Your task to perform on an android device: turn off location history Image 0: 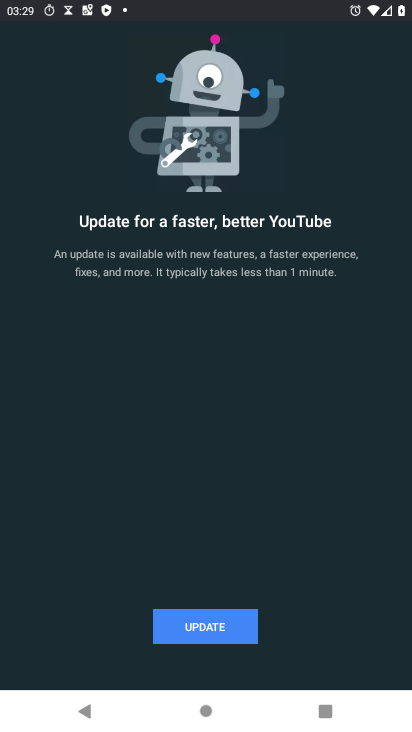
Step 0: press home button
Your task to perform on an android device: turn off location history Image 1: 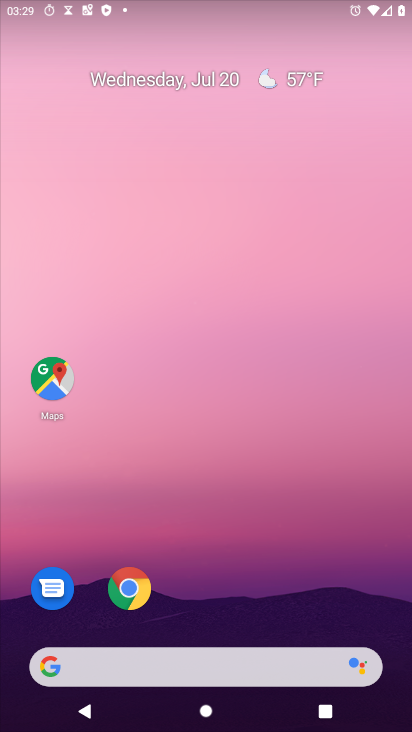
Step 1: drag from (243, 562) to (405, 249)
Your task to perform on an android device: turn off location history Image 2: 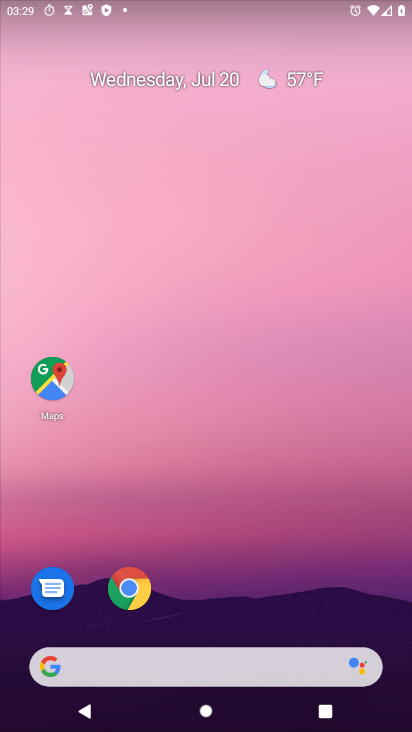
Step 2: drag from (270, 671) to (294, 19)
Your task to perform on an android device: turn off location history Image 3: 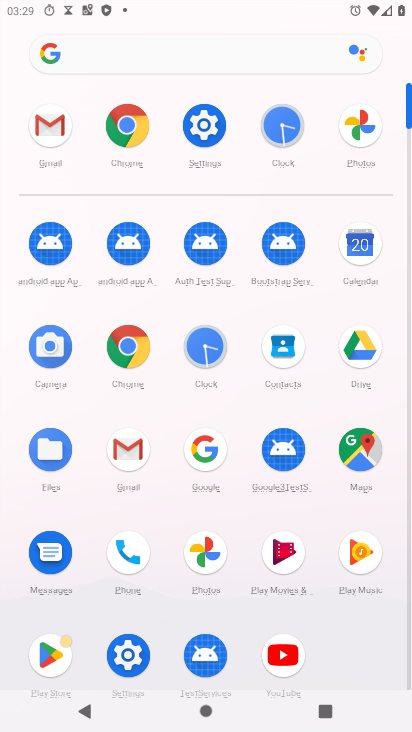
Step 3: click (217, 129)
Your task to perform on an android device: turn off location history Image 4: 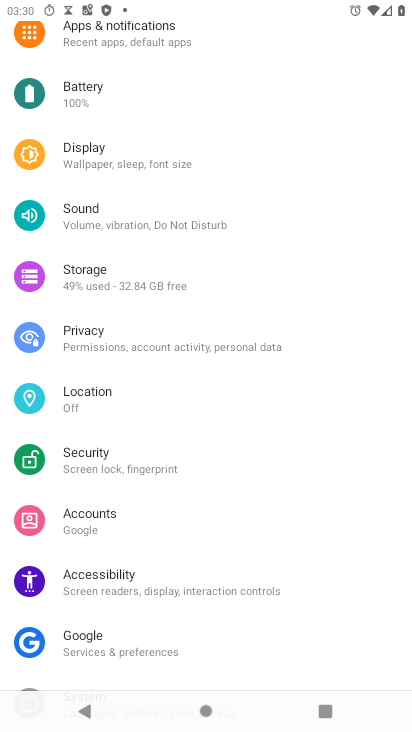
Step 4: click (126, 397)
Your task to perform on an android device: turn off location history Image 5: 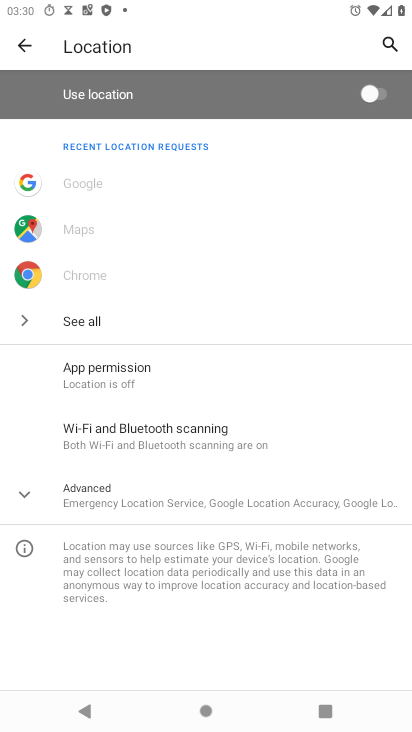
Step 5: click (168, 492)
Your task to perform on an android device: turn off location history Image 6: 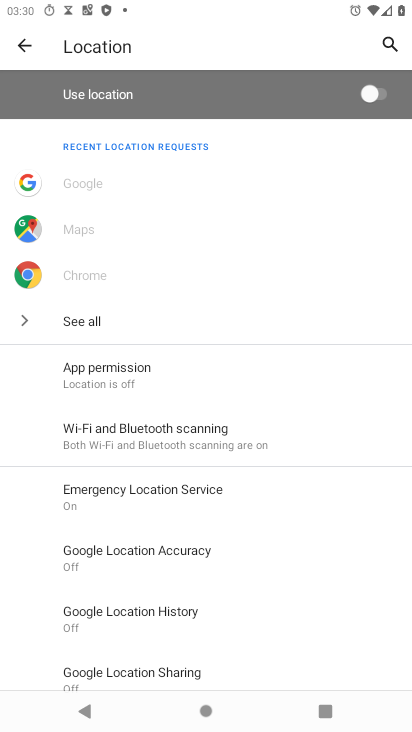
Step 6: click (186, 605)
Your task to perform on an android device: turn off location history Image 7: 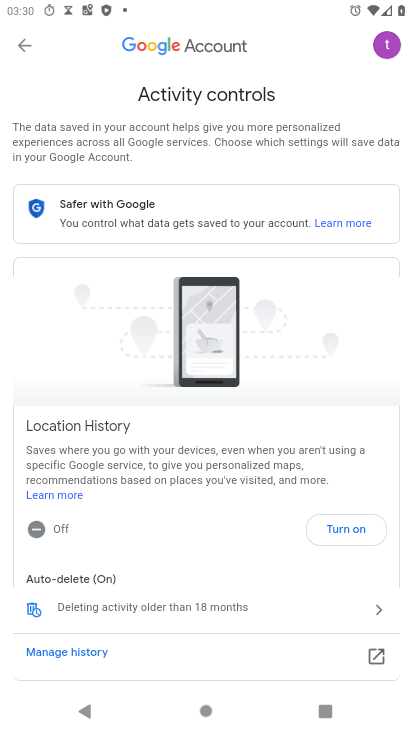
Step 7: task complete